Your task to perform on an android device: toggle translation in the chrome app Image 0: 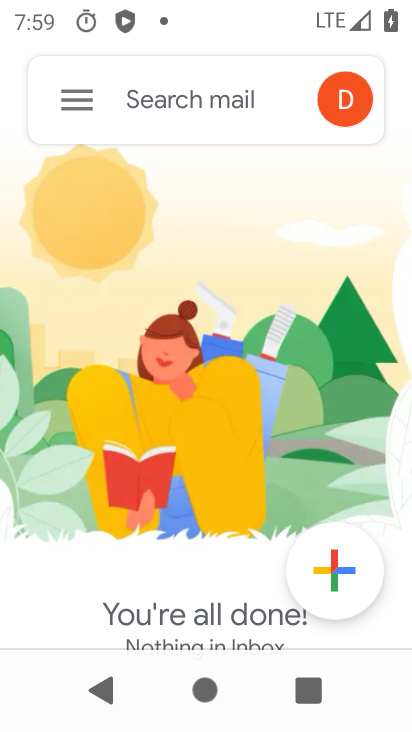
Step 0: press home button
Your task to perform on an android device: toggle translation in the chrome app Image 1: 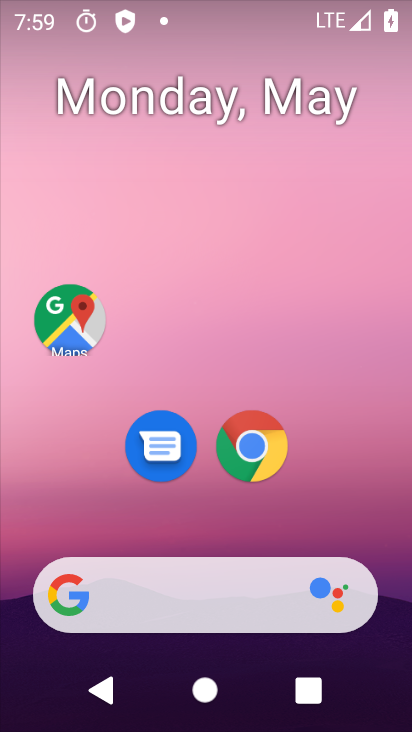
Step 1: click (251, 454)
Your task to perform on an android device: toggle translation in the chrome app Image 2: 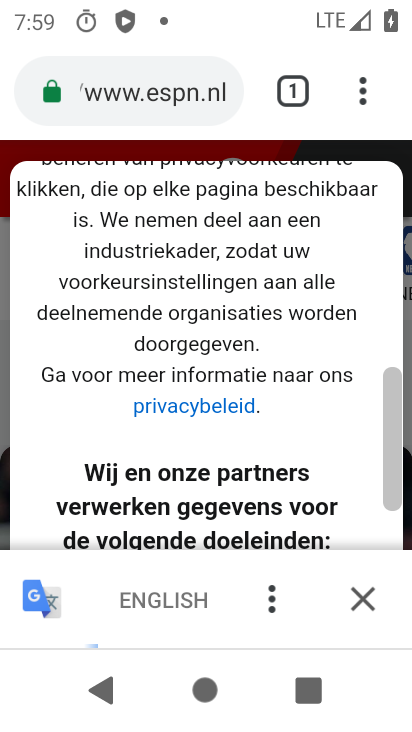
Step 2: click (364, 95)
Your task to perform on an android device: toggle translation in the chrome app Image 3: 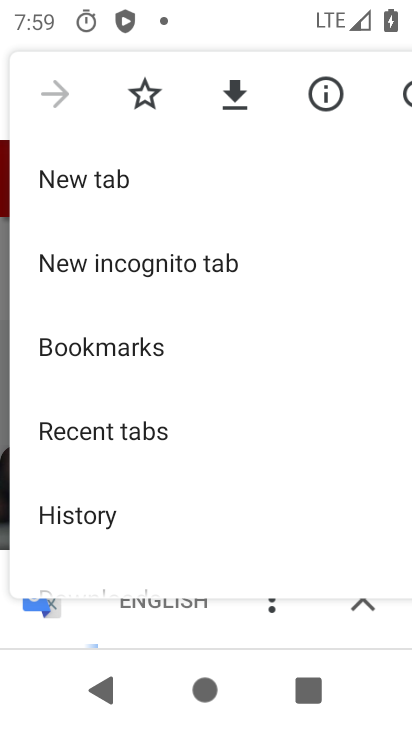
Step 3: drag from (164, 464) to (168, 0)
Your task to perform on an android device: toggle translation in the chrome app Image 4: 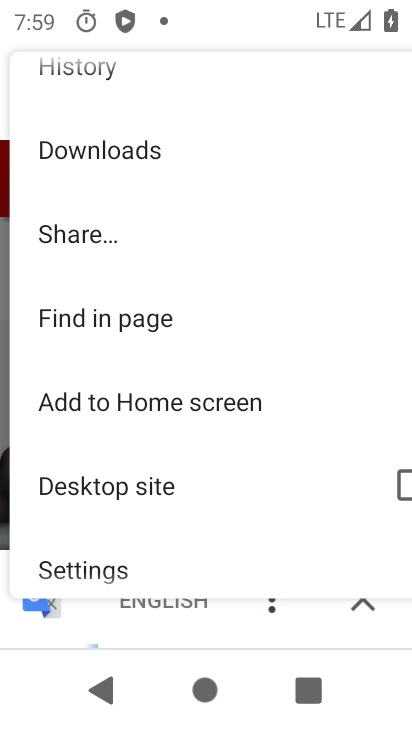
Step 4: drag from (188, 458) to (186, 25)
Your task to perform on an android device: toggle translation in the chrome app Image 5: 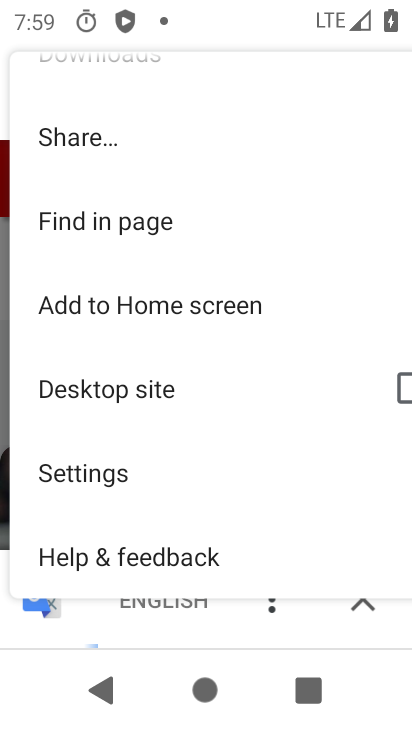
Step 5: click (94, 477)
Your task to perform on an android device: toggle translation in the chrome app Image 6: 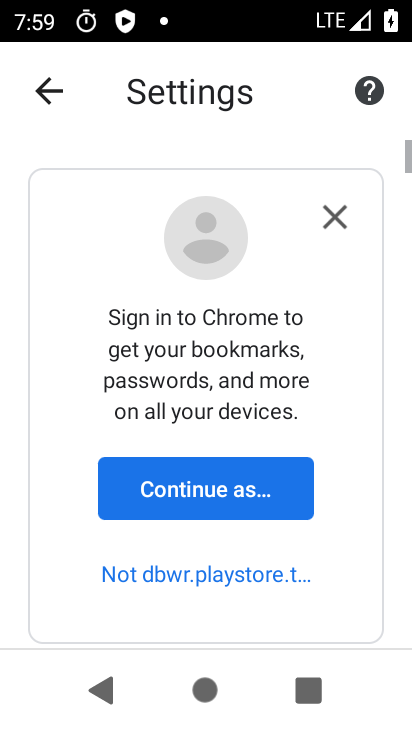
Step 6: drag from (310, 592) to (267, 6)
Your task to perform on an android device: toggle translation in the chrome app Image 7: 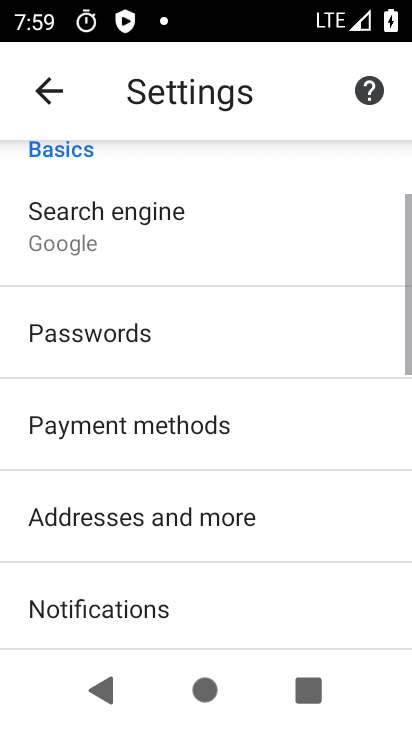
Step 7: drag from (187, 537) to (168, 52)
Your task to perform on an android device: toggle translation in the chrome app Image 8: 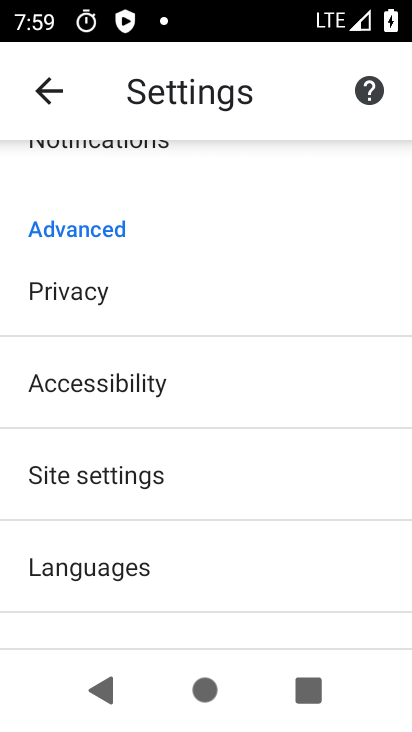
Step 8: click (133, 560)
Your task to perform on an android device: toggle translation in the chrome app Image 9: 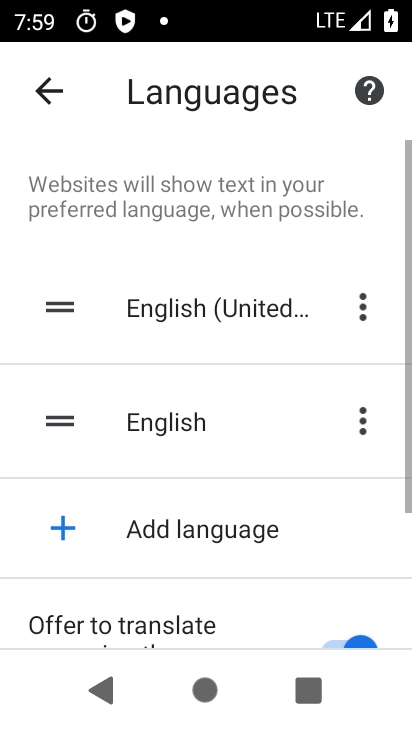
Step 9: drag from (227, 571) to (219, 197)
Your task to perform on an android device: toggle translation in the chrome app Image 10: 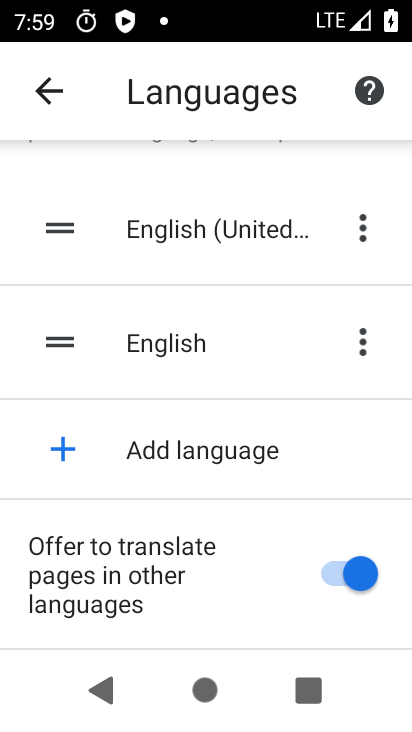
Step 10: click (353, 576)
Your task to perform on an android device: toggle translation in the chrome app Image 11: 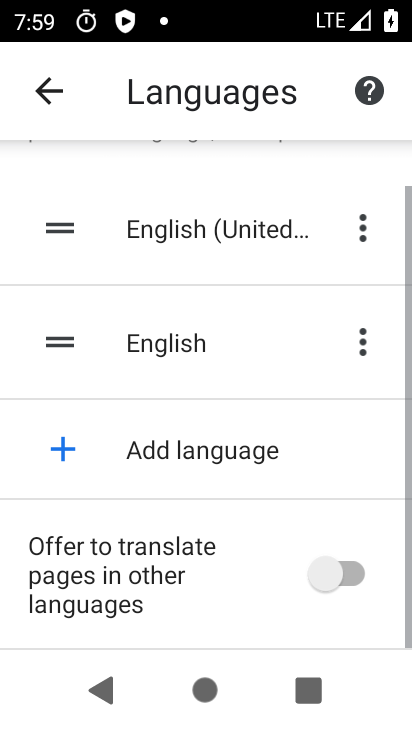
Step 11: task complete